Your task to perform on an android device: Open calendar and show me the fourth week of next month Image 0: 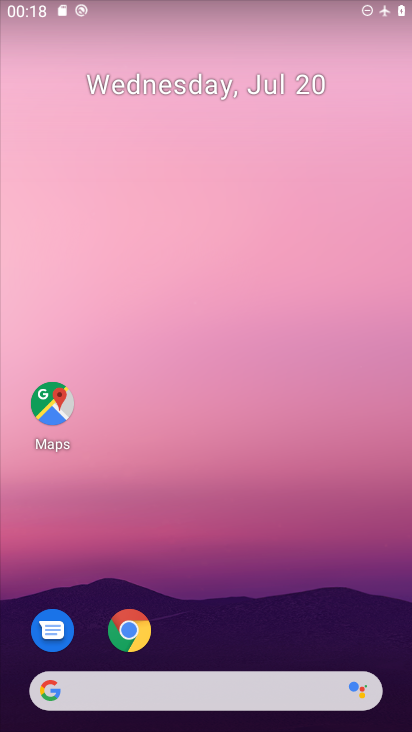
Step 0: drag from (228, 604) to (229, 151)
Your task to perform on an android device: Open calendar and show me the fourth week of next month Image 1: 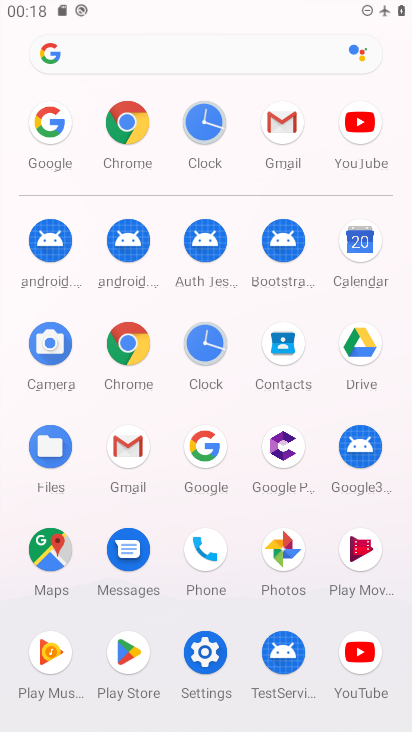
Step 1: click (350, 237)
Your task to perform on an android device: Open calendar and show me the fourth week of next month Image 2: 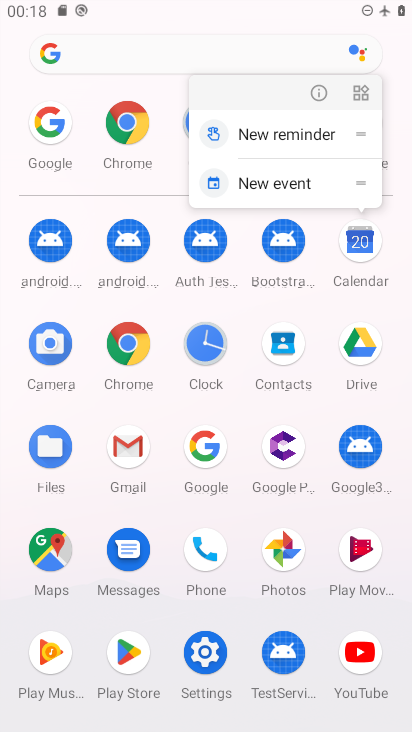
Step 2: click (358, 250)
Your task to perform on an android device: Open calendar and show me the fourth week of next month Image 3: 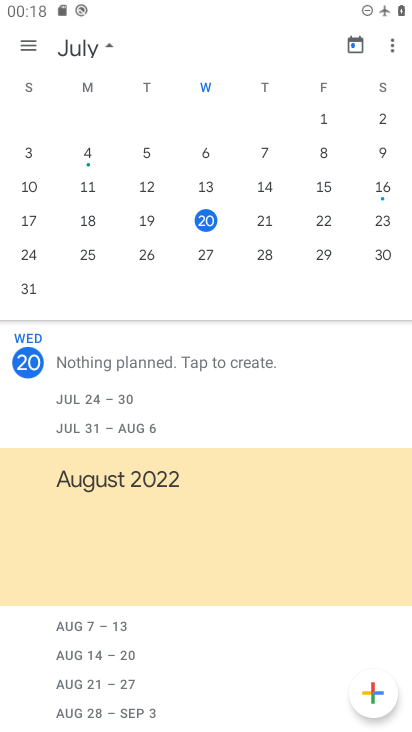
Step 3: drag from (335, 165) to (0, 168)
Your task to perform on an android device: Open calendar and show me the fourth week of next month Image 4: 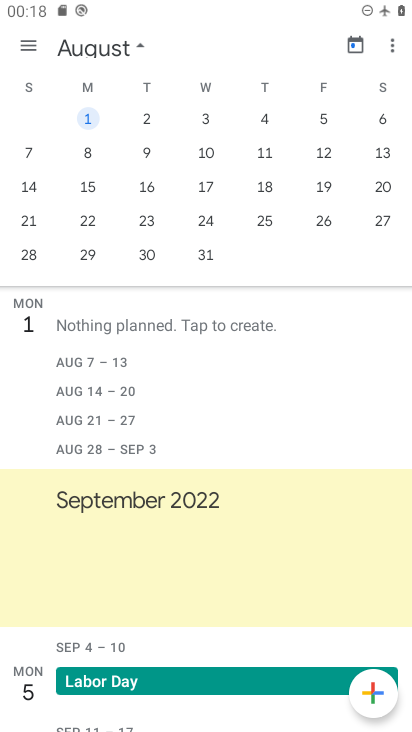
Step 4: click (326, 149)
Your task to perform on an android device: Open calendar and show me the fourth week of next month Image 5: 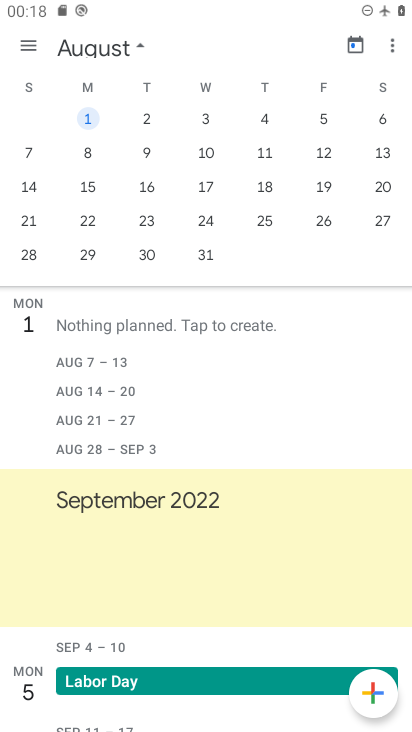
Step 5: click (29, 211)
Your task to perform on an android device: Open calendar and show me the fourth week of next month Image 6: 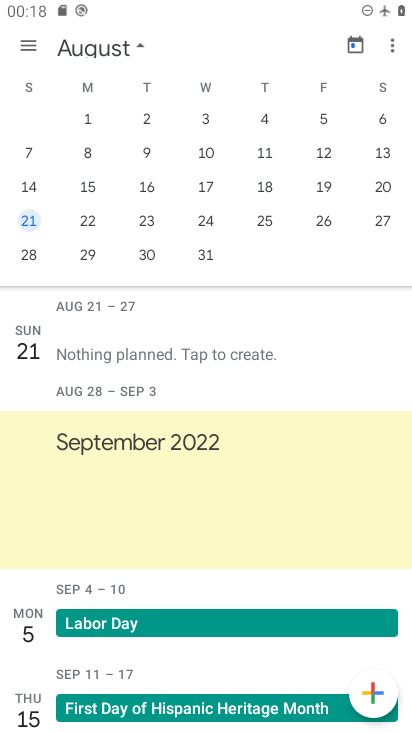
Step 6: task complete